Your task to perform on an android device: turn vacation reply on in the gmail app Image 0: 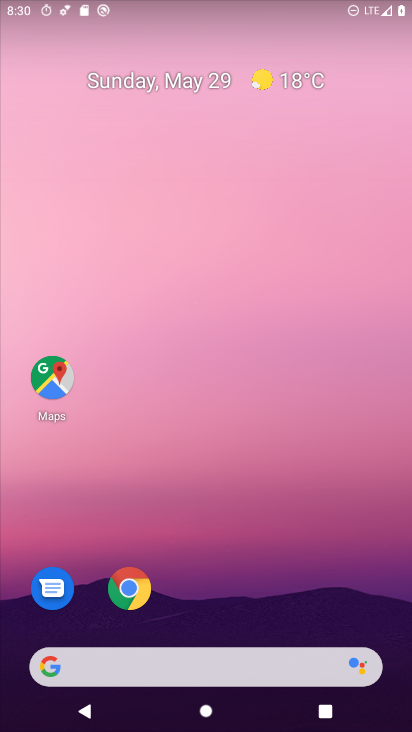
Step 0: drag from (190, 550) to (183, 86)
Your task to perform on an android device: turn vacation reply on in the gmail app Image 1: 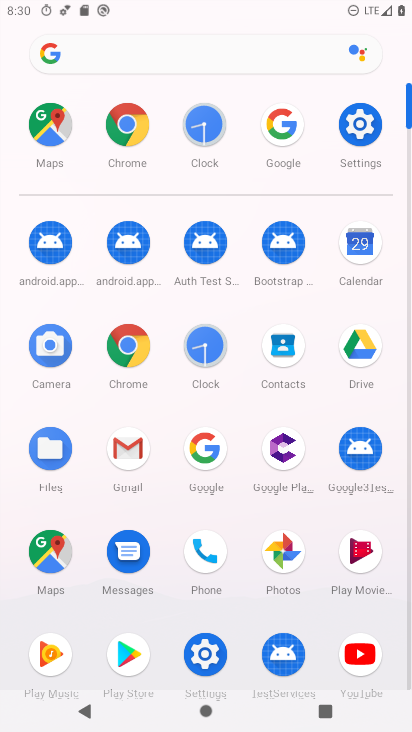
Step 1: click (126, 448)
Your task to perform on an android device: turn vacation reply on in the gmail app Image 2: 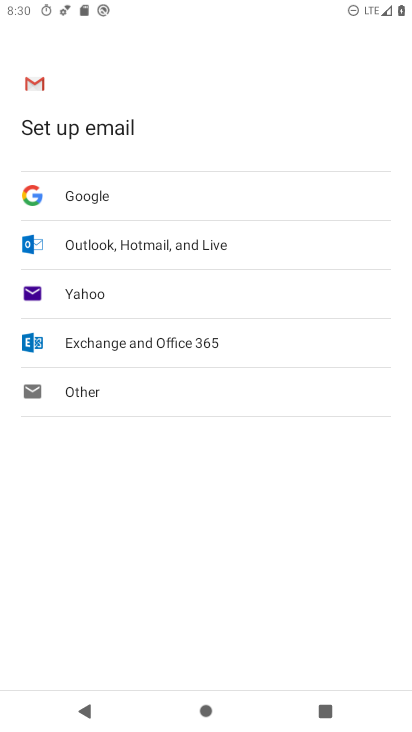
Step 2: press back button
Your task to perform on an android device: turn vacation reply on in the gmail app Image 3: 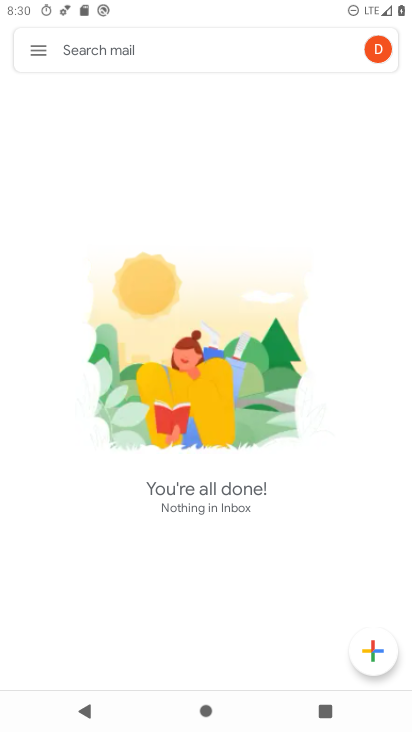
Step 3: click (44, 51)
Your task to perform on an android device: turn vacation reply on in the gmail app Image 4: 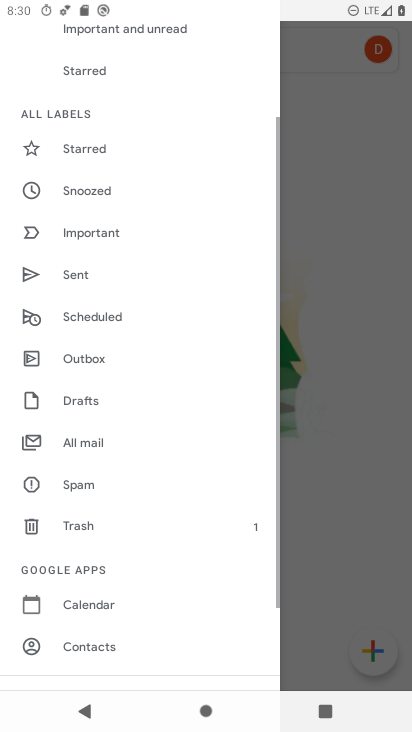
Step 4: drag from (134, 566) to (128, 215)
Your task to perform on an android device: turn vacation reply on in the gmail app Image 5: 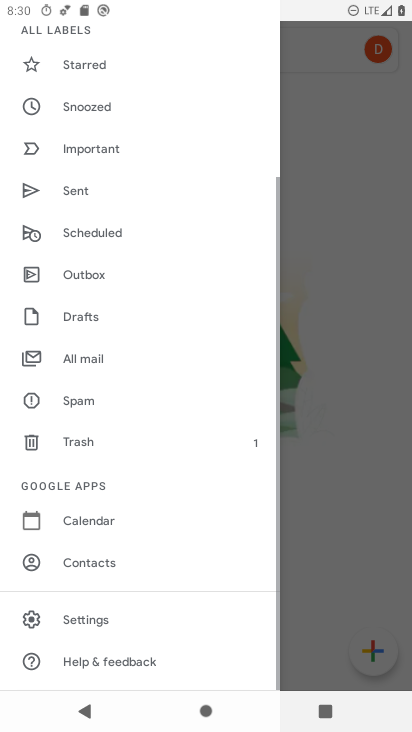
Step 5: click (101, 613)
Your task to perform on an android device: turn vacation reply on in the gmail app Image 6: 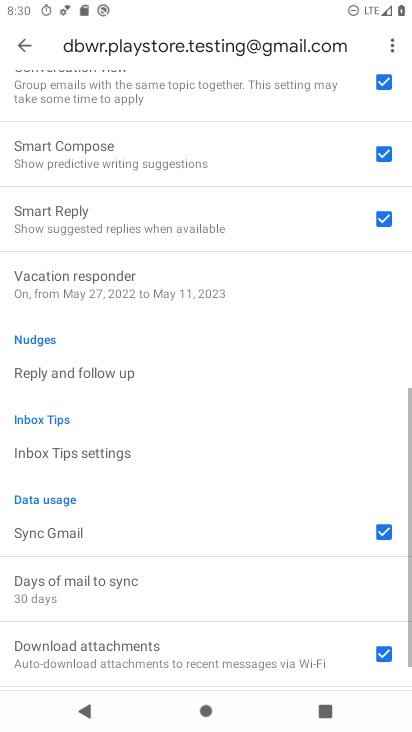
Step 6: drag from (117, 529) to (178, 363)
Your task to perform on an android device: turn vacation reply on in the gmail app Image 7: 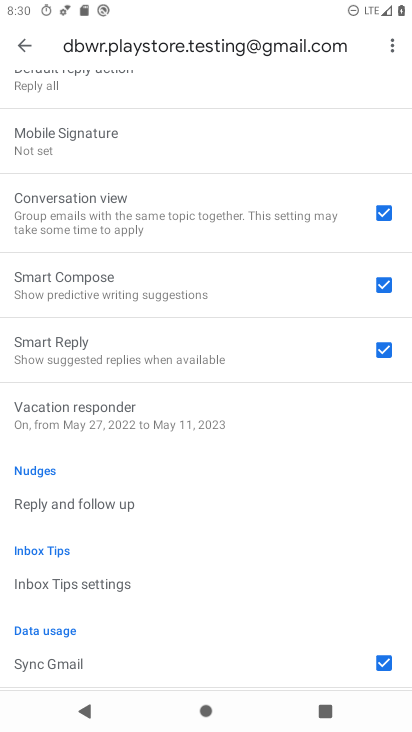
Step 7: click (109, 422)
Your task to perform on an android device: turn vacation reply on in the gmail app Image 8: 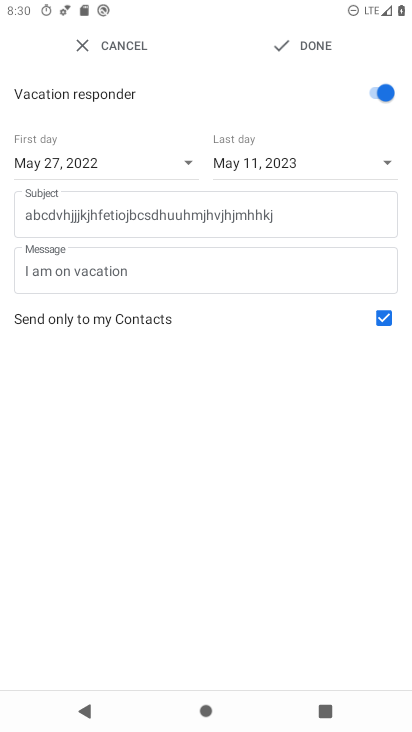
Step 8: task complete